Your task to perform on an android device: Empty the shopping cart on newegg. Add razer deathadder to the cart on newegg Image 0: 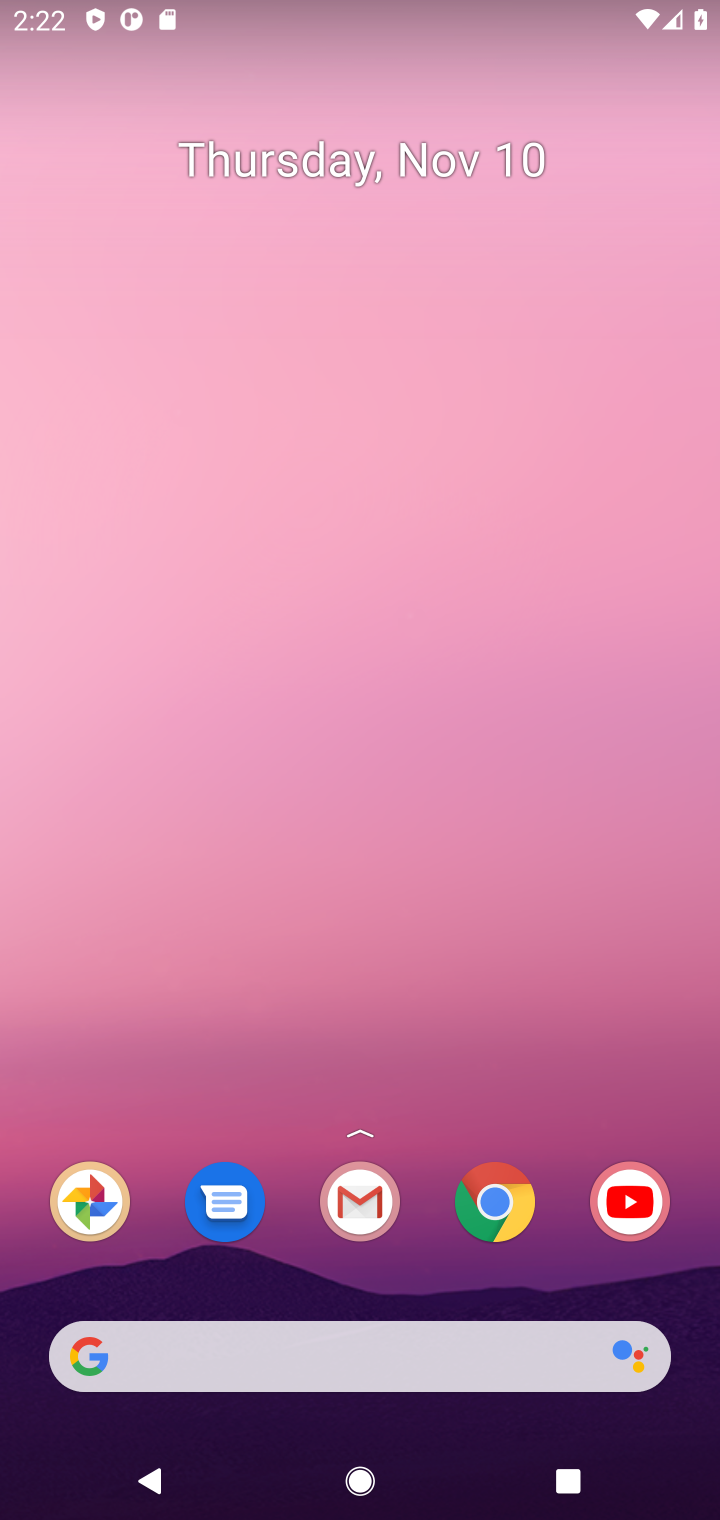
Step 0: click (494, 1202)
Your task to perform on an android device: Empty the shopping cart on newegg. Add razer deathadder to the cart on newegg Image 1: 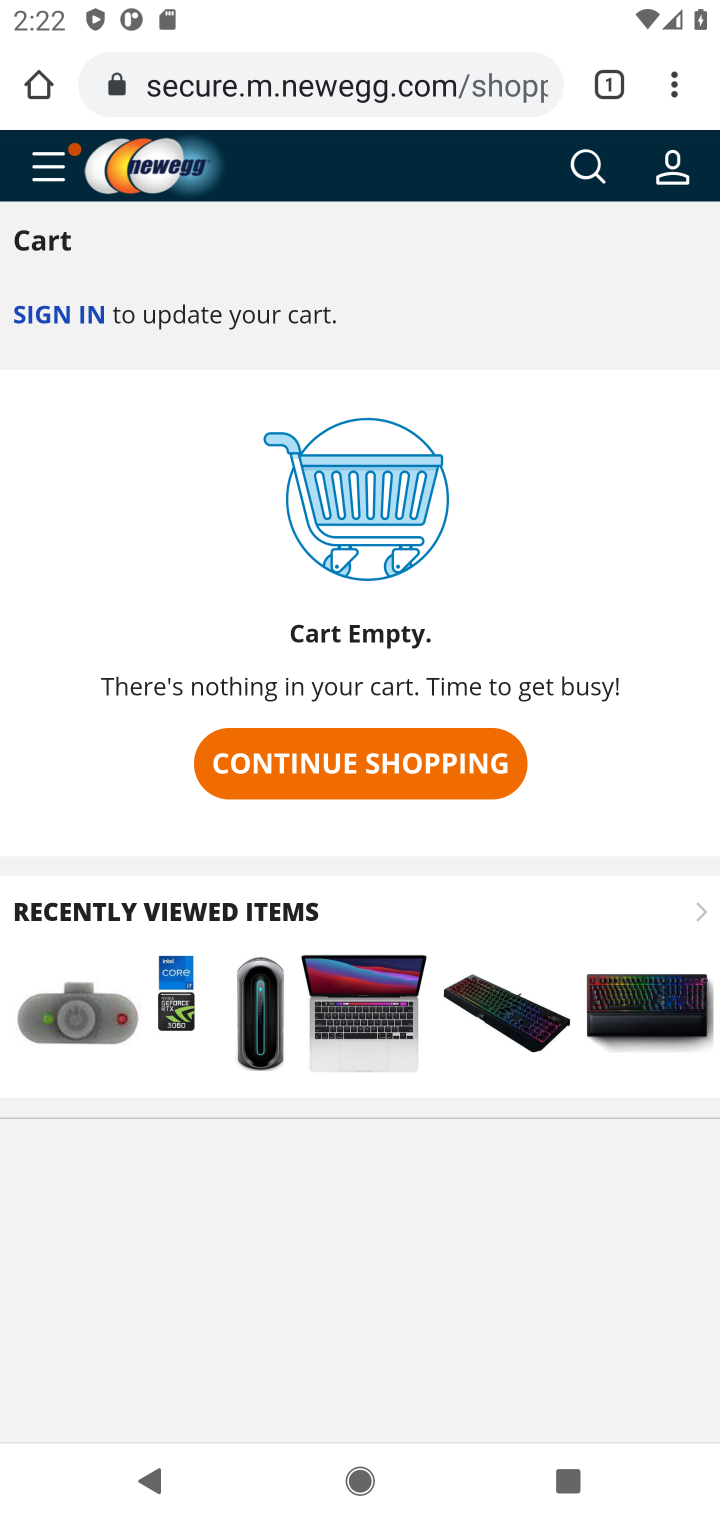
Step 1: click (596, 176)
Your task to perform on an android device: Empty the shopping cart on newegg. Add razer deathadder to the cart on newegg Image 2: 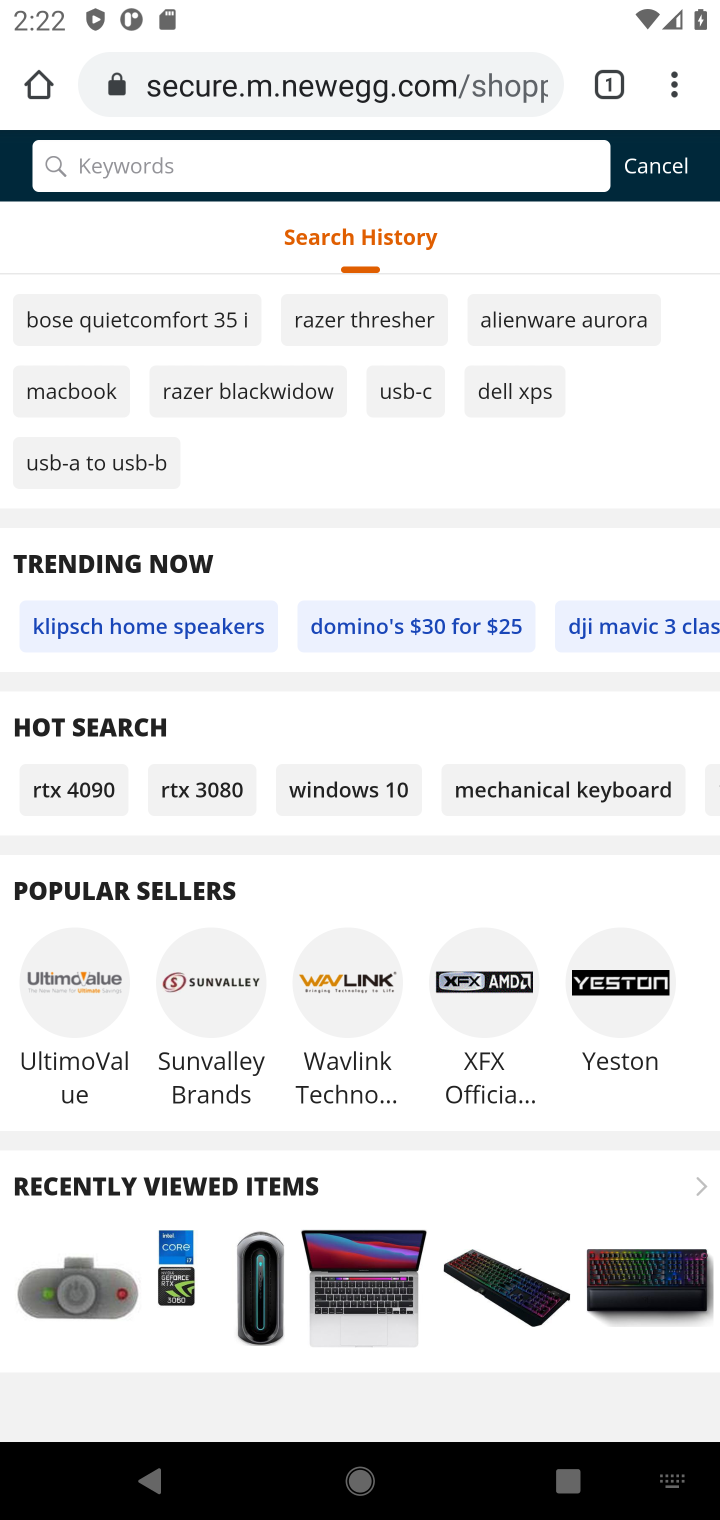
Step 2: click (661, 163)
Your task to perform on an android device: Empty the shopping cart on newegg. Add razer deathadder to the cart on newegg Image 3: 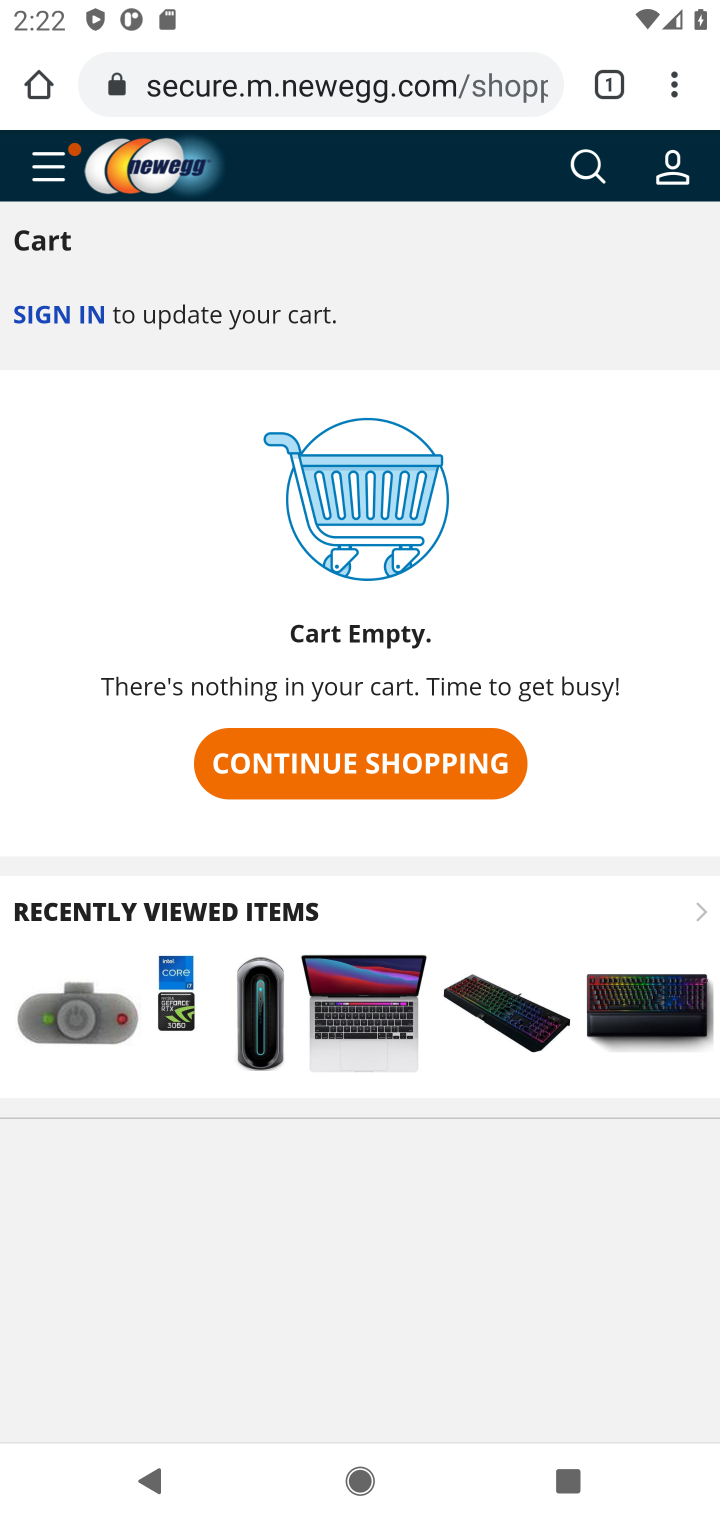
Step 3: click (585, 164)
Your task to perform on an android device: Empty the shopping cart on newegg. Add razer deathadder to the cart on newegg Image 4: 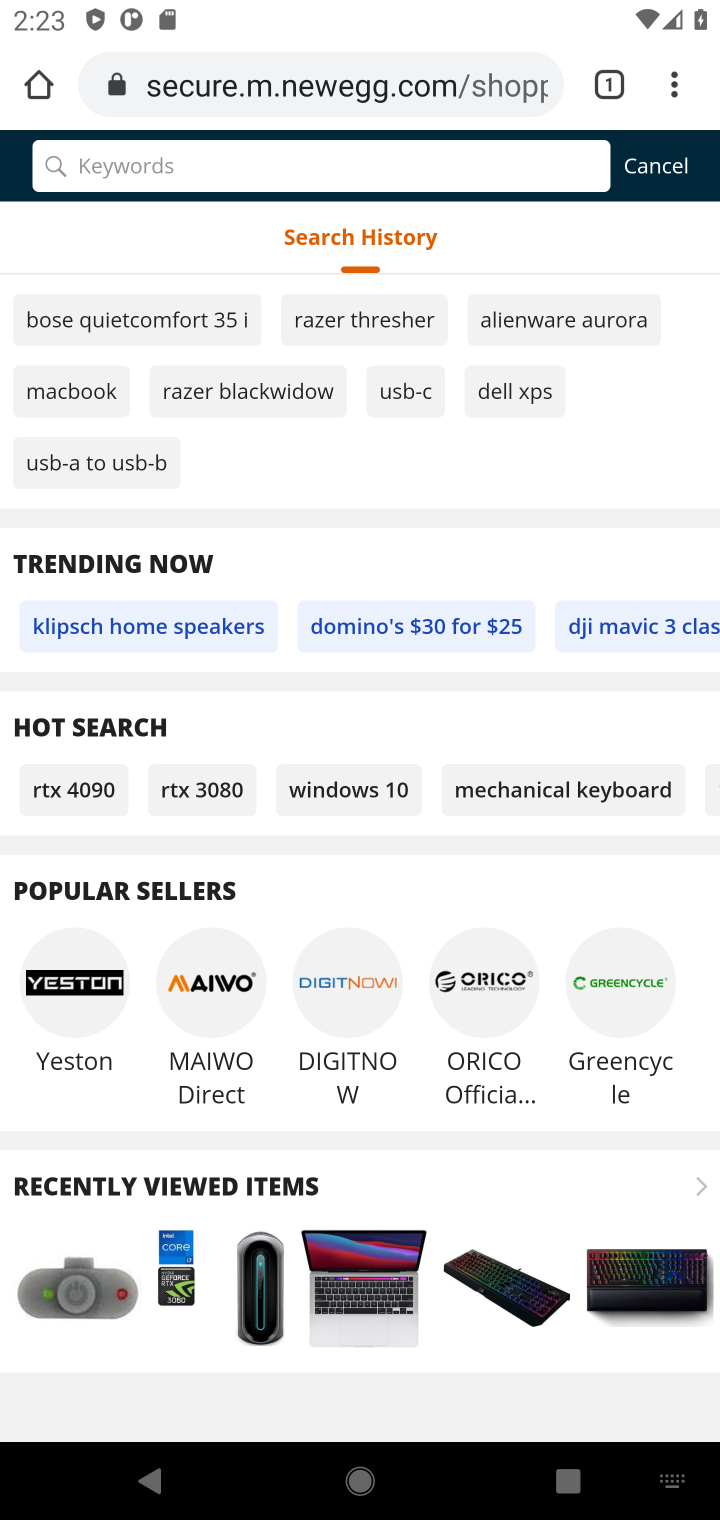
Step 4: type "razer deathadder"
Your task to perform on an android device: Empty the shopping cart on newegg. Add razer deathadder to the cart on newegg Image 5: 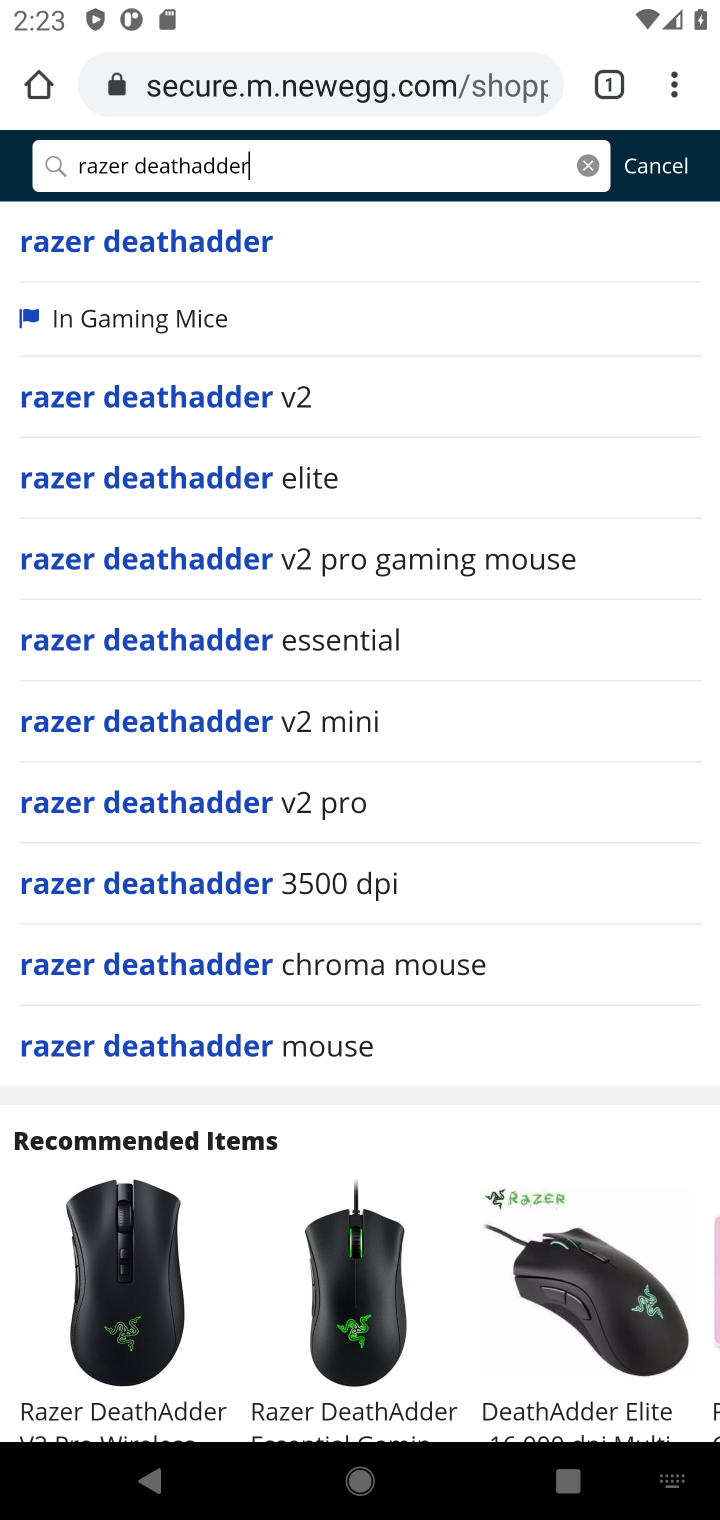
Step 5: click (244, 234)
Your task to perform on an android device: Empty the shopping cart on newegg. Add razer deathadder to the cart on newegg Image 6: 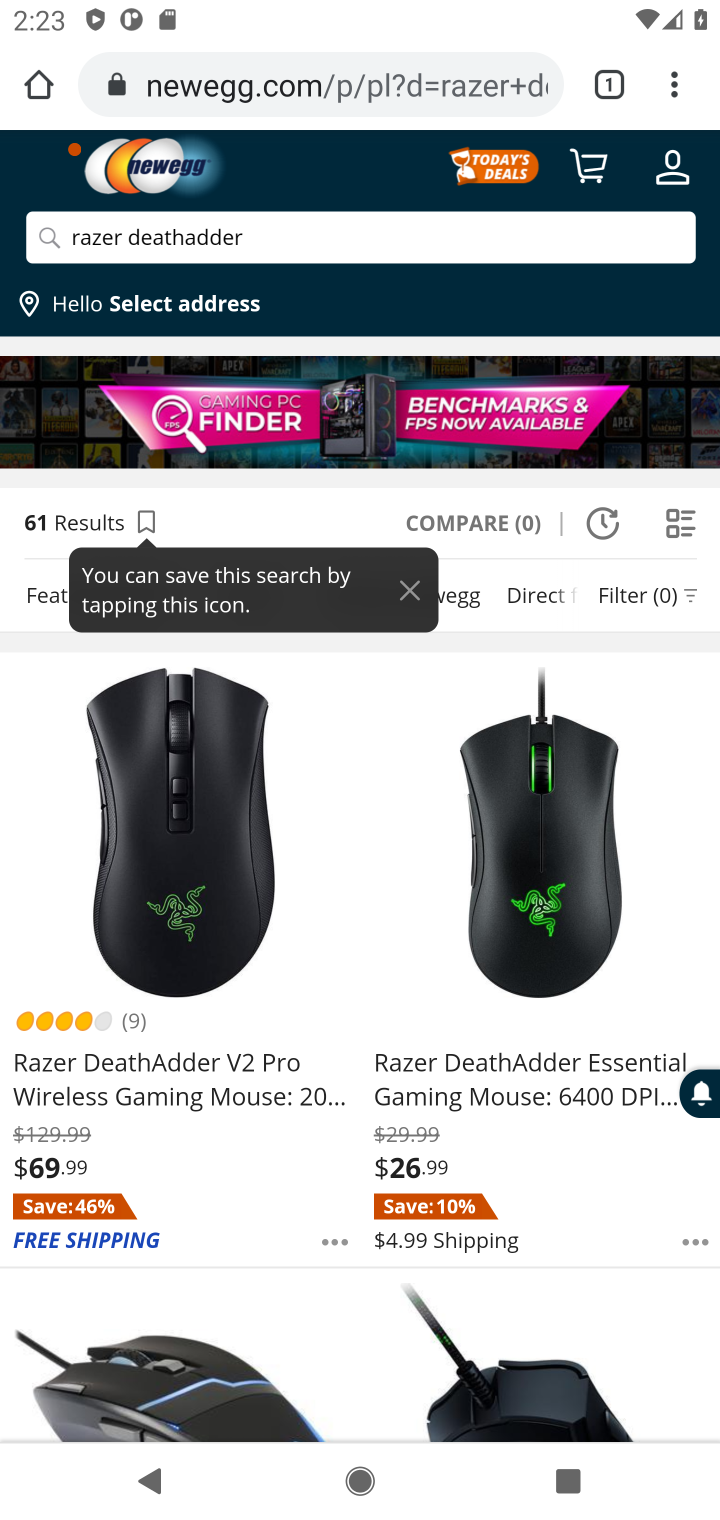
Step 6: click (188, 848)
Your task to perform on an android device: Empty the shopping cart on newegg. Add razer deathadder to the cart on newegg Image 7: 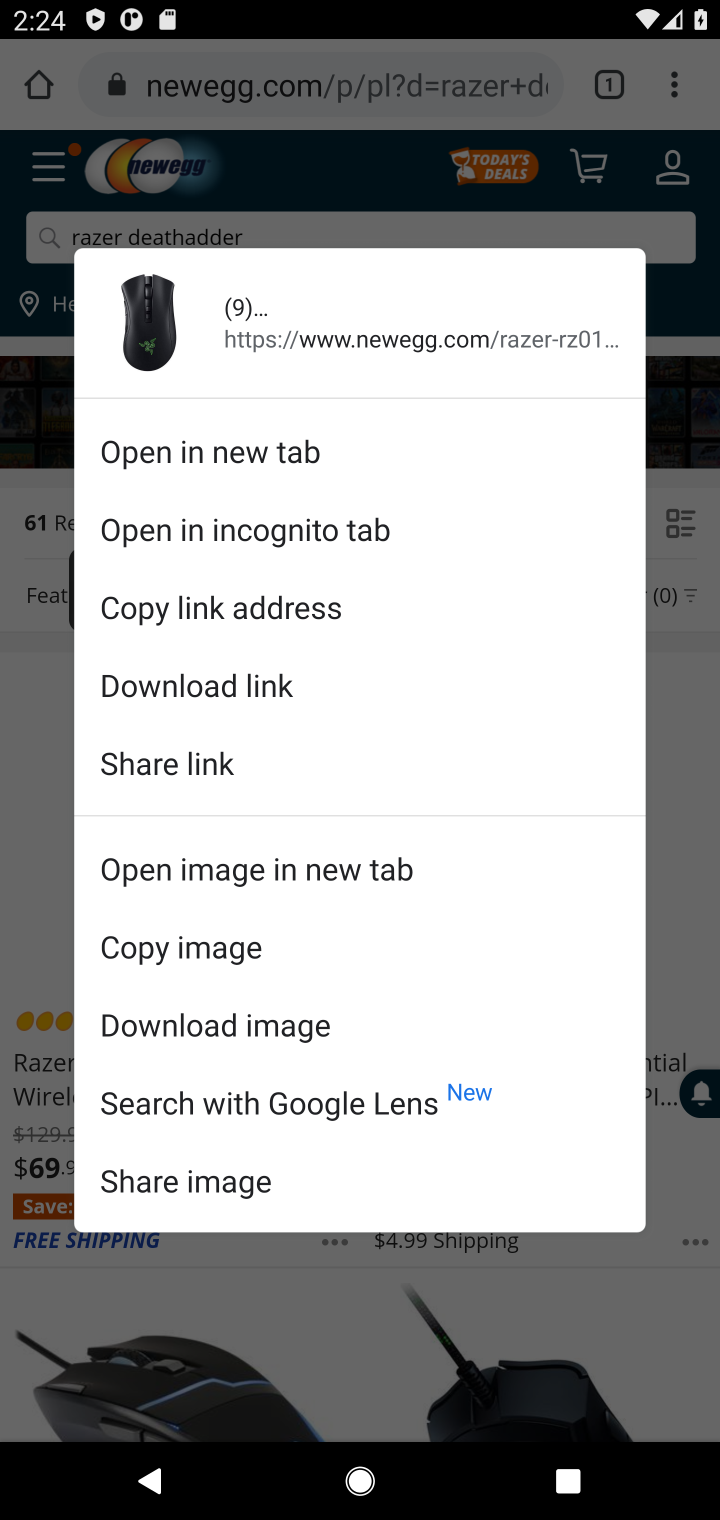
Step 7: click (691, 548)
Your task to perform on an android device: Empty the shopping cart on newegg. Add razer deathadder to the cart on newegg Image 8: 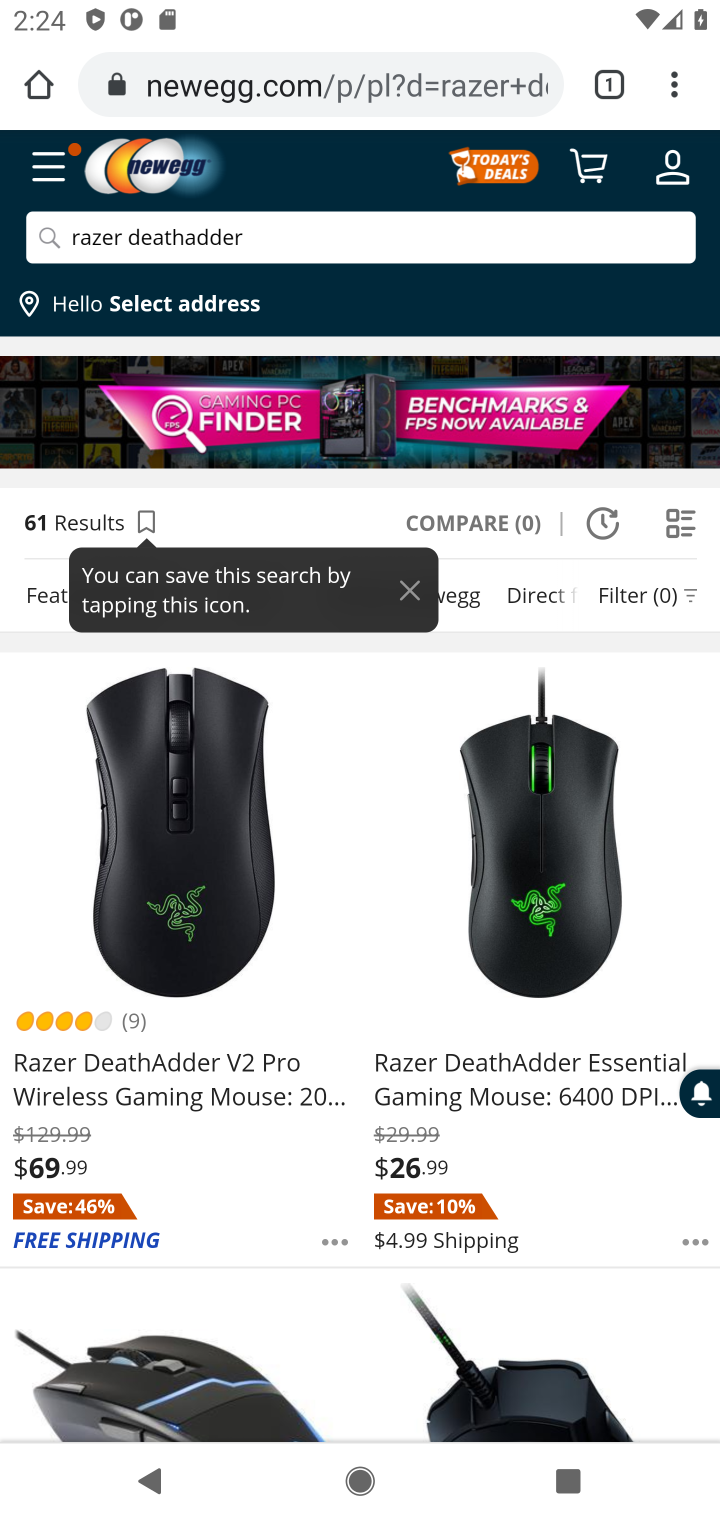
Step 8: click (215, 813)
Your task to perform on an android device: Empty the shopping cart on newegg. Add razer deathadder to the cart on newegg Image 9: 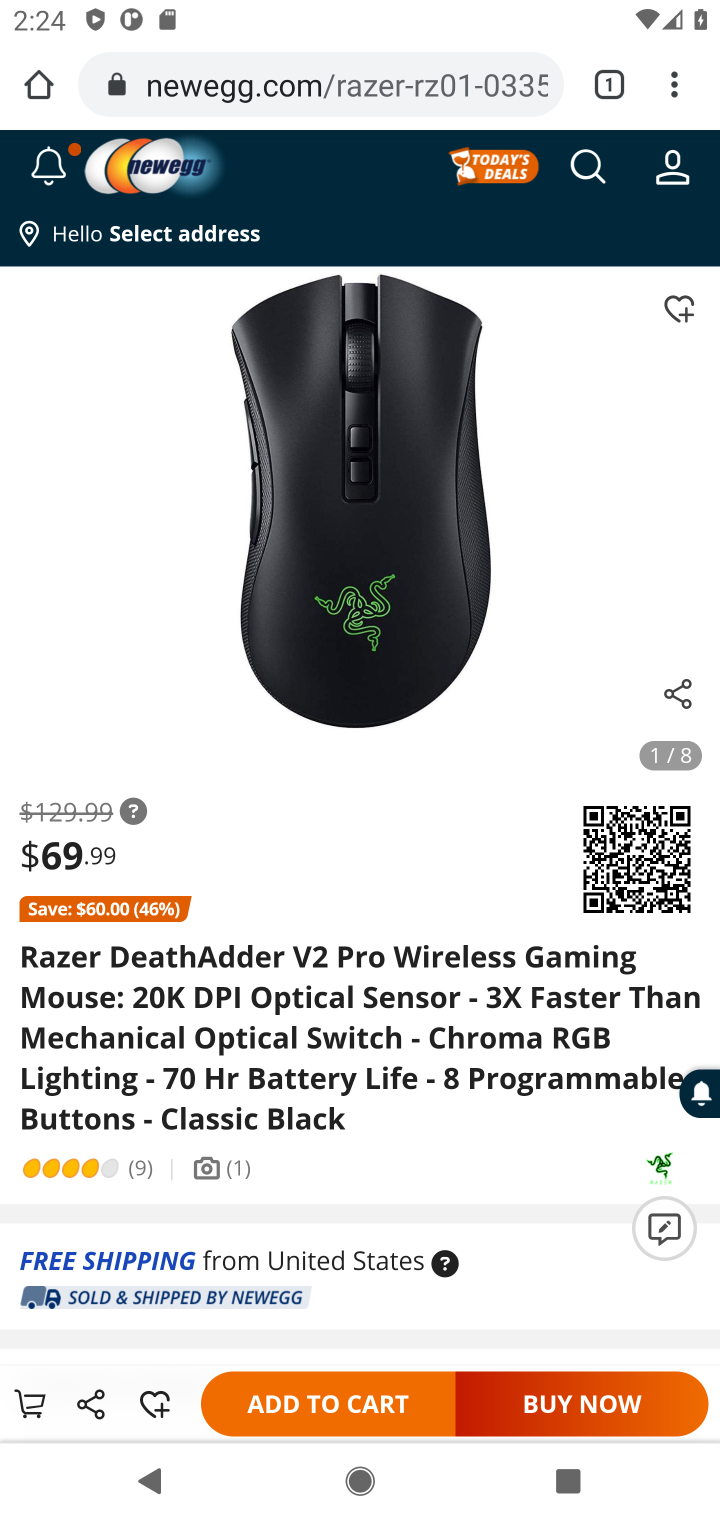
Step 9: click (319, 1401)
Your task to perform on an android device: Empty the shopping cart on newegg. Add razer deathadder to the cart on newegg Image 10: 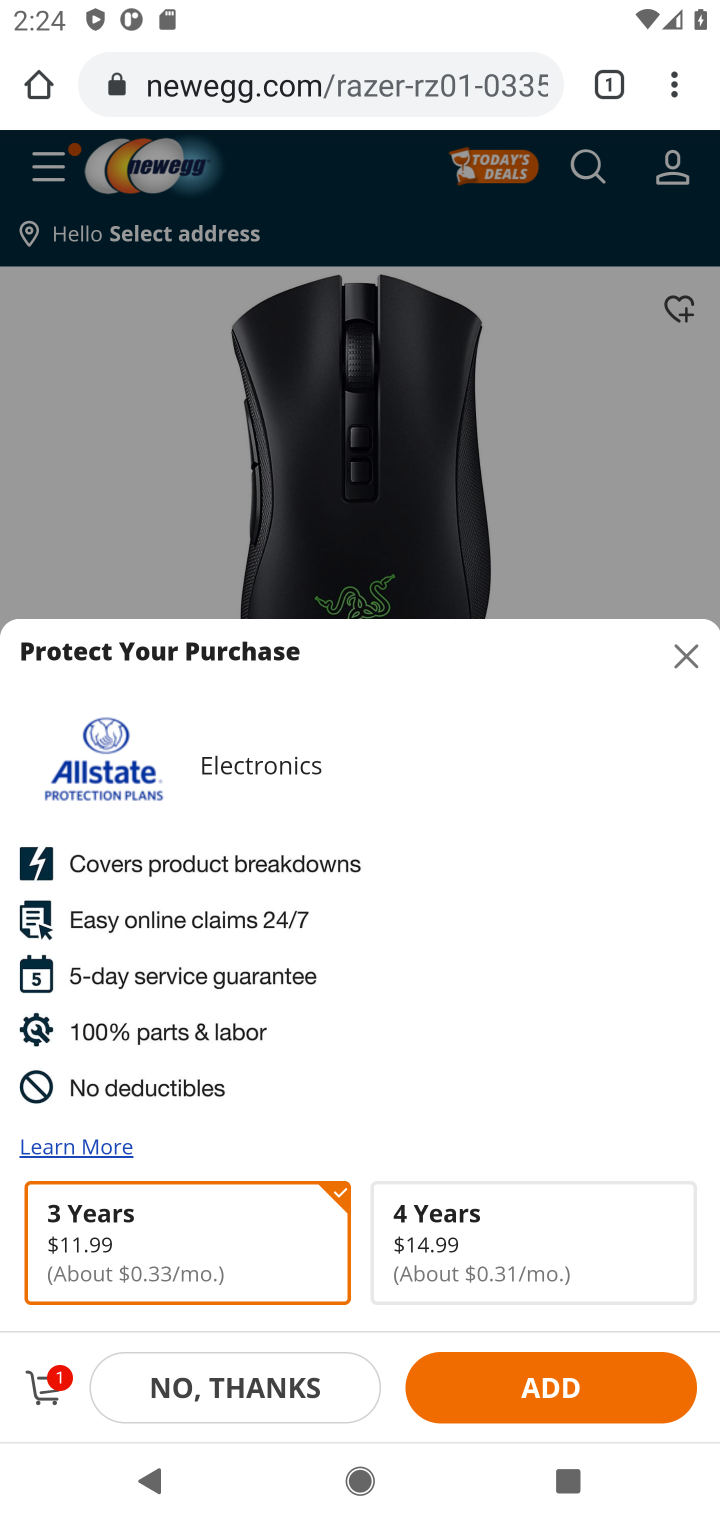
Step 10: task complete